Your task to perform on an android device: Open Yahoo.com Image 0: 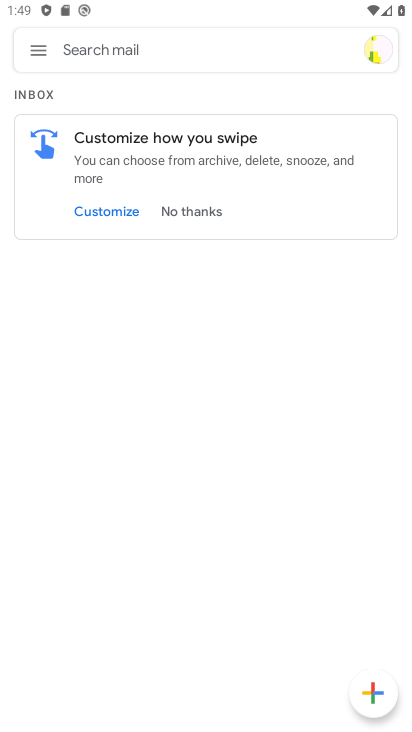
Step 0: press home button
Your task to perform on an android device: Open Yahoo.com Image 1: 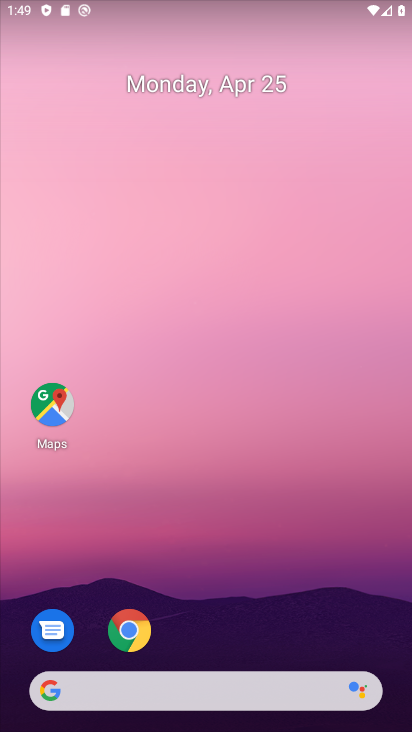
Step 1: click (128, 618)
Your task to perform on an android device: Open Yahoo.com Image 2: 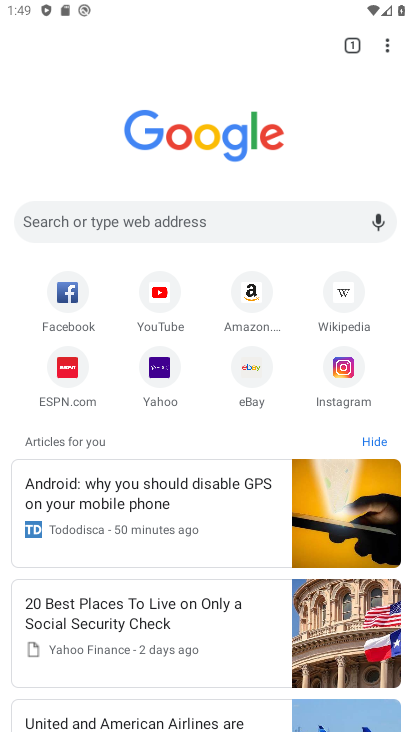
Step 2: click (155, 382)
Your task to perform on an android device: Open Yahoo.com Image 3: 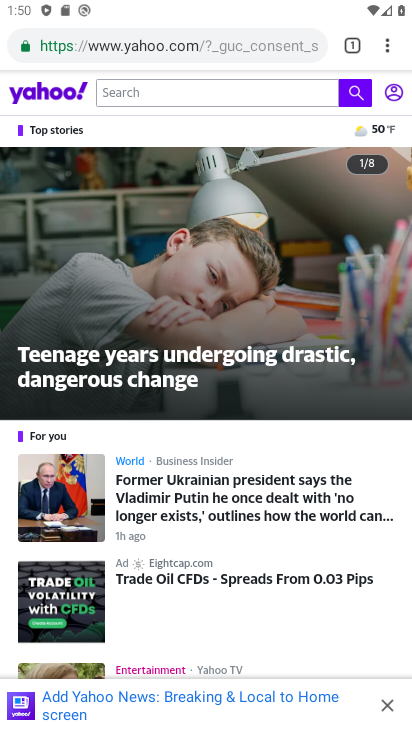
Step 3: task complete